Your task to perform on an android device: turn off airplane mode Image 0: 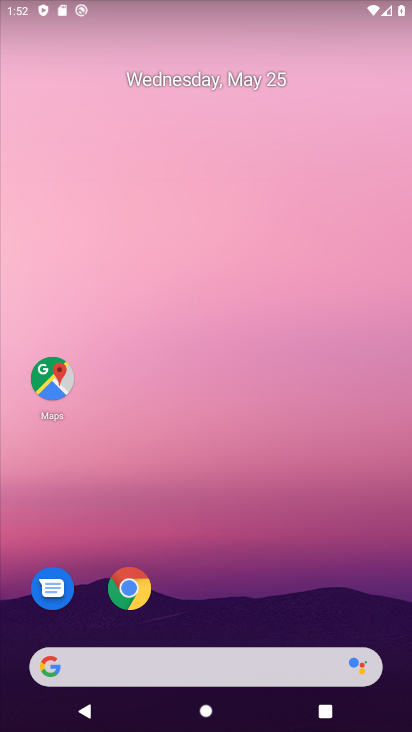
Step 0: drag from (182, 596) to (266, 278)
Your task to perform on an android device: turn off airplane mode Image 1: 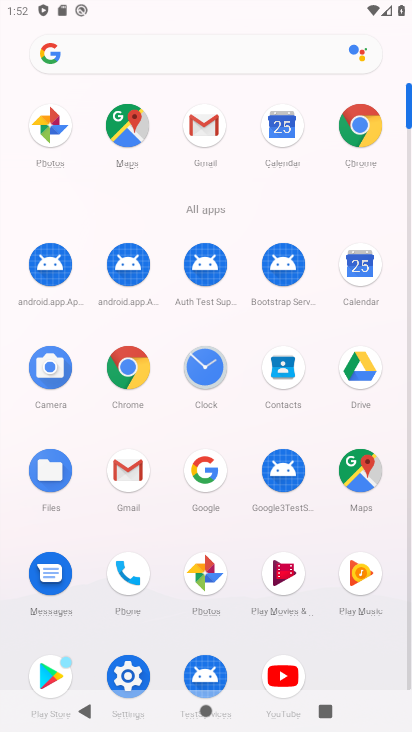
Step 1: drag from (164, 626) to (166, 273)
Your task to perform on an android device: turn off airplane mode Image 2: 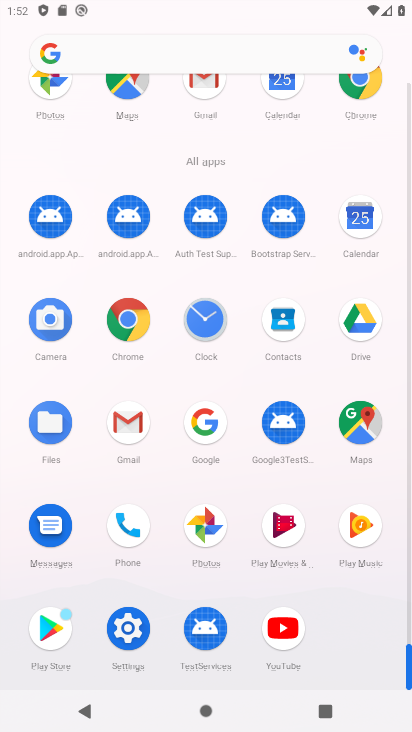
Step 2: click (127, 629)
Your task to perform on an android device: turn off airplane mode Image 3: 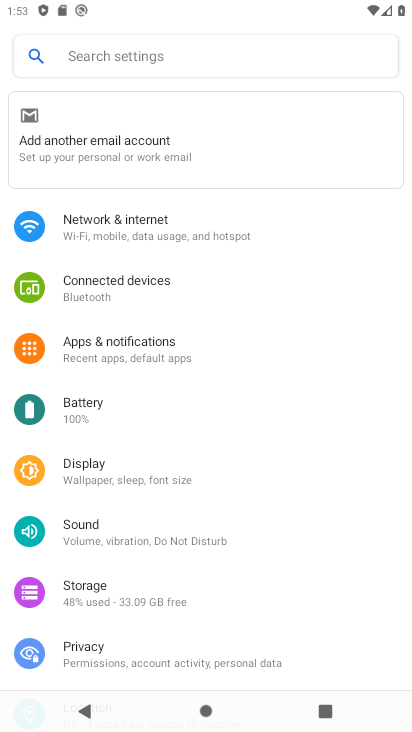
Step 3: click (107, 219)
Your task to perform on an android device: turn off airplane mode Image 4: 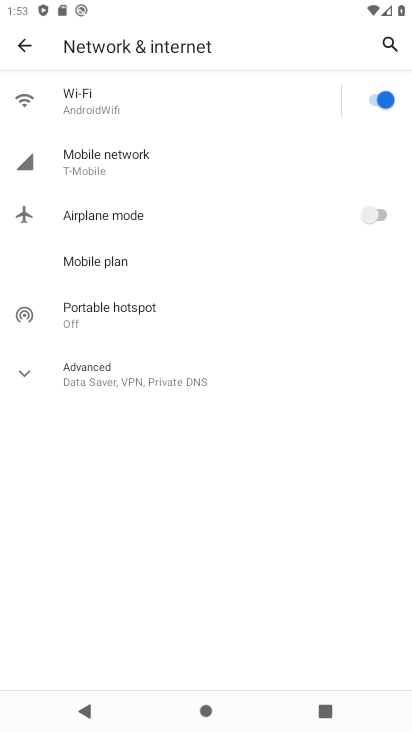
Step 4: task complete